Your task to perform on an android device: turn off improve location accuracy Image 0: 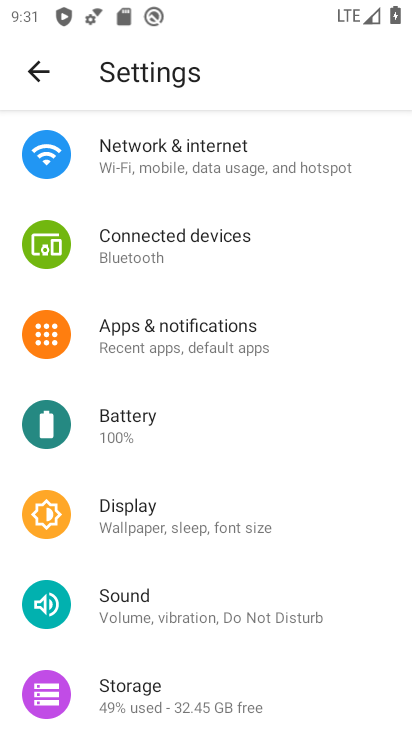
Step 0: drag from (230, 565) to (319, 153)
Your task to perform on an android device: turn off improve location accuracy Image 1: 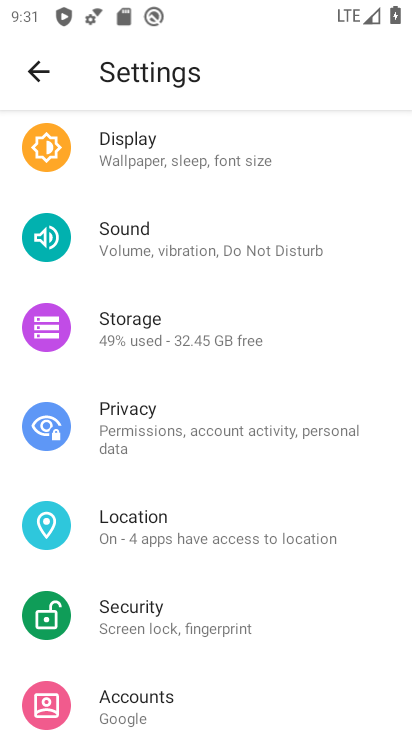
Step 1: click (155, 516)
Your task to perform on an android device: turn off improve location accuracy Image 2: 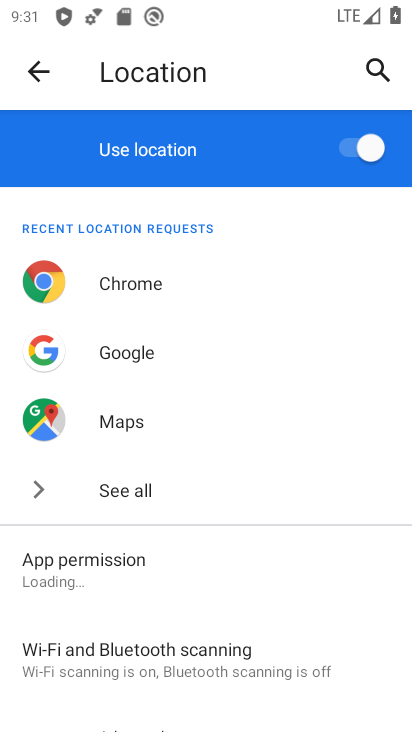
Step 2: drag from (229, 583) to (278, 209)
Your task to perform on an android device: turn off improve location accuracy Image 3: 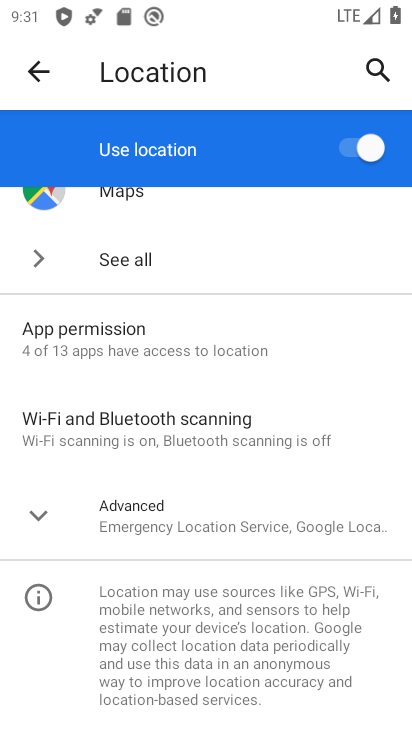
Step 3: click (166, 519)
Your task to perform on an android device: turn off improve location accuracy Image 4: 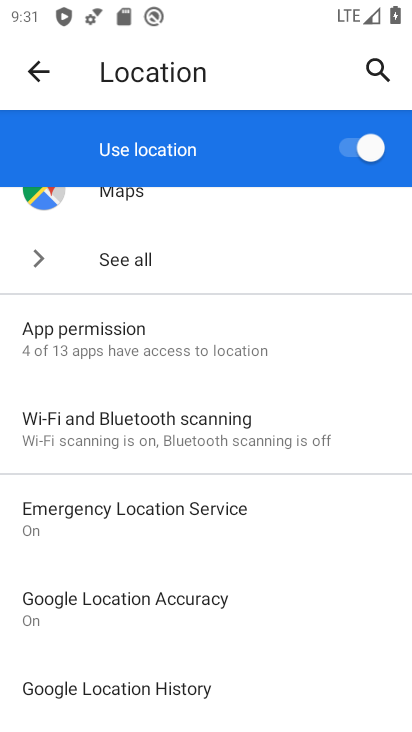
Step 4: click (181, 574)
Your task to perform on an android device: turn off improve location accuracy Image 5: 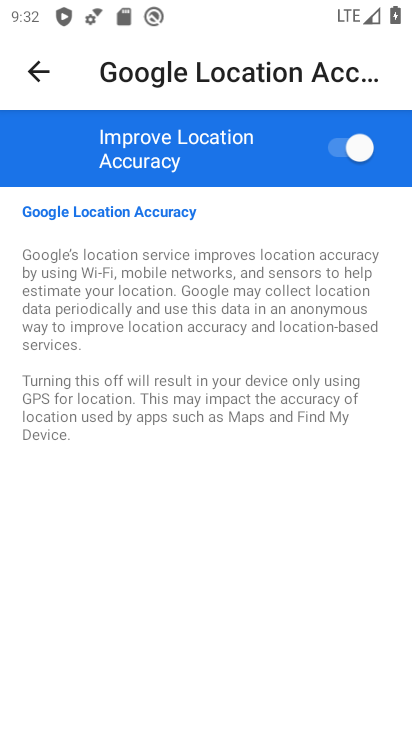
Step 5: task complete